Your task to perform on an android device: refresh tabs in the chrome app Image 0: 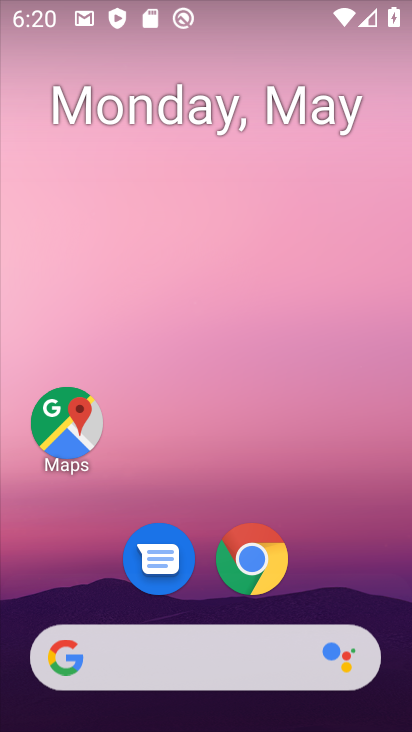
Step 0: drag from (357, 636) to (318, 121)
Your task to perform on an android device: refresh tabs in the chrome app Image 1: 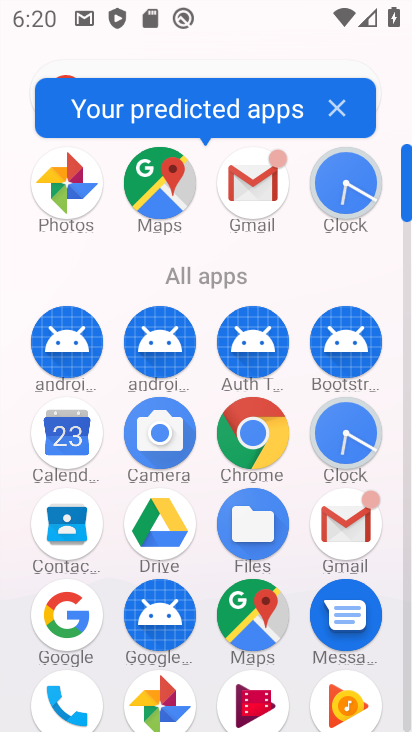
Step 1: click (259, 437)
Your task to perform on an android device: refresh tabs in the chrome app Image 2: 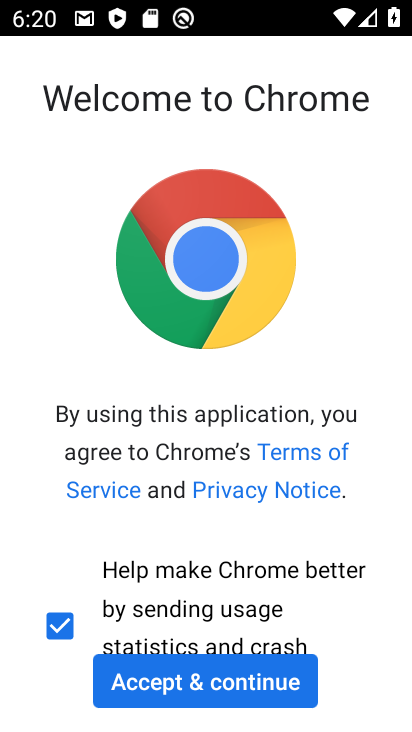
Step 2: click (248, 674)
Your task to perform on an android device: refresh tabs in the chrome app Image 3: 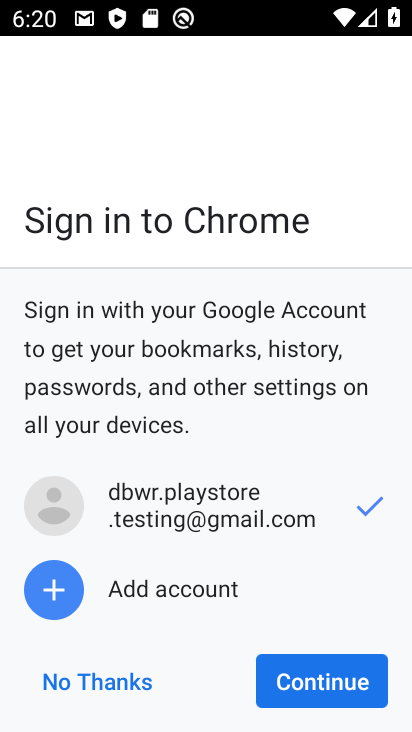
Step 3: click (303, 686)
Your task to perform on an android device: refresh tabs in the chrome app Image 4: 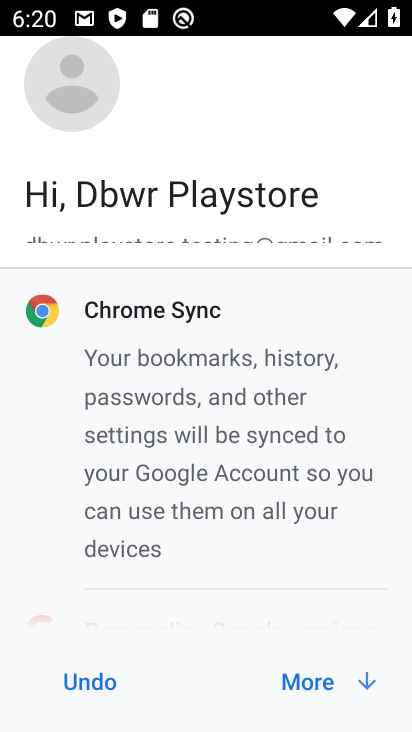
Step 4: click (303, 686)
Your task to perform on an android device: refresh tabs in the chrome app Image 5: 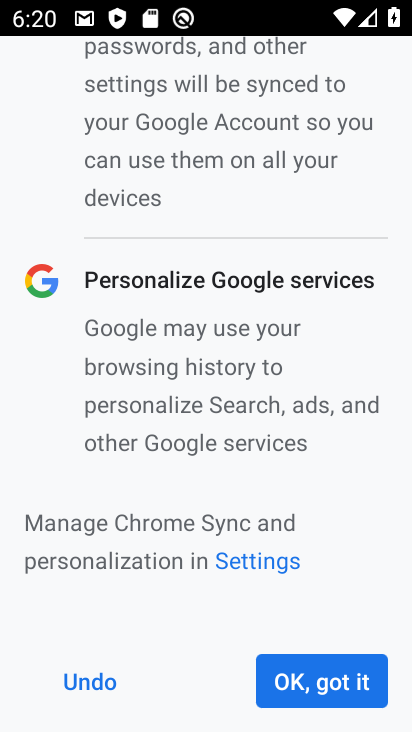
Step 5: click (303, 686)
Your task to perform on an android device: refresh tabs in the chrome app Image 6: 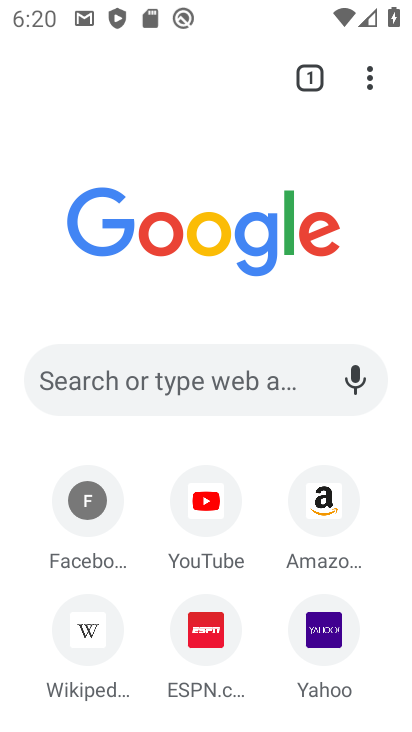
Step 6: click (364, 70)
Your task to perform on an android device: refresh tabs in the chrome app Image 7: 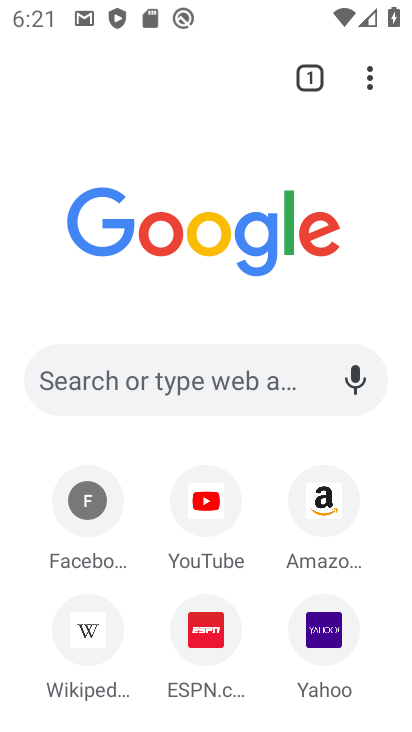
Step 7: click (371, 71)
Your task to perform on an android device: refresh tabs in the chrome app Image 8: 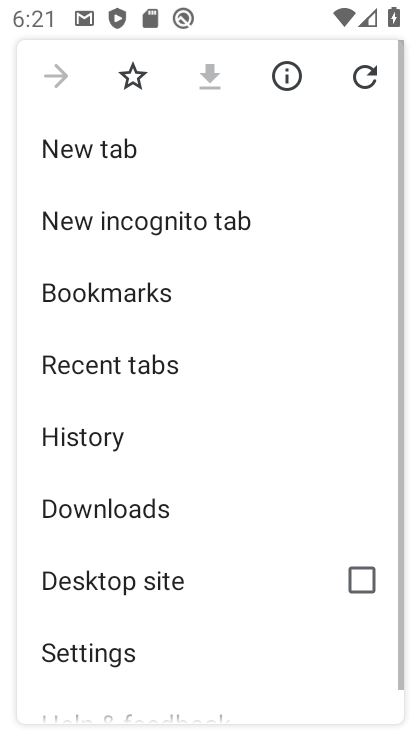
Step 8: click (371, 71)
Your task to perform on an android device: refresh tabs in the chrome app Image 9: 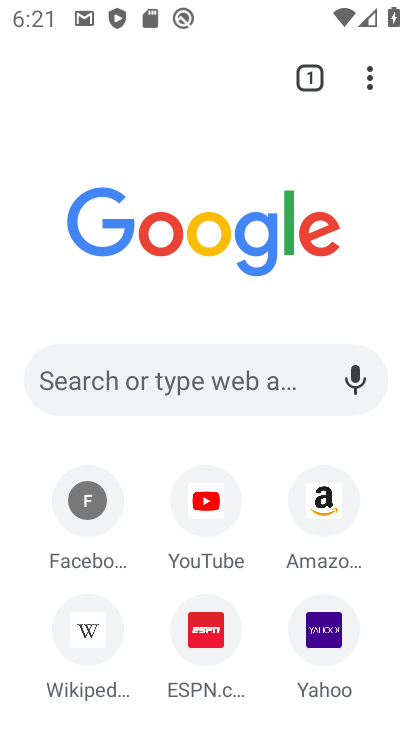
Step 9: task complete